Your task to perform on an android device: change the clock display to digital Image 0: 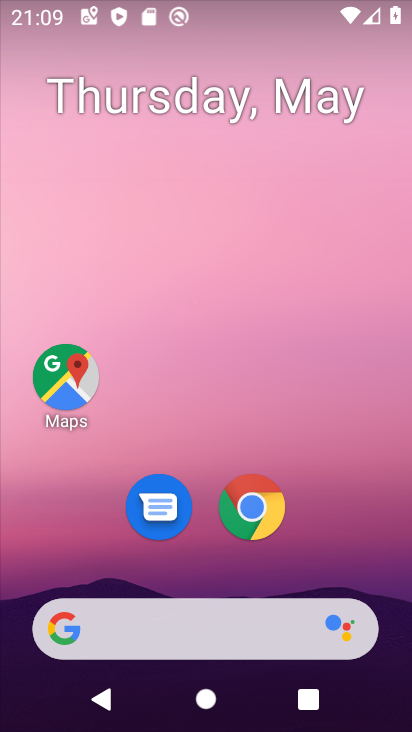
Step 0: drag from (363, 665) to (333, 287)
Your task to perform on an android device: change the clock display to digital Image 1: 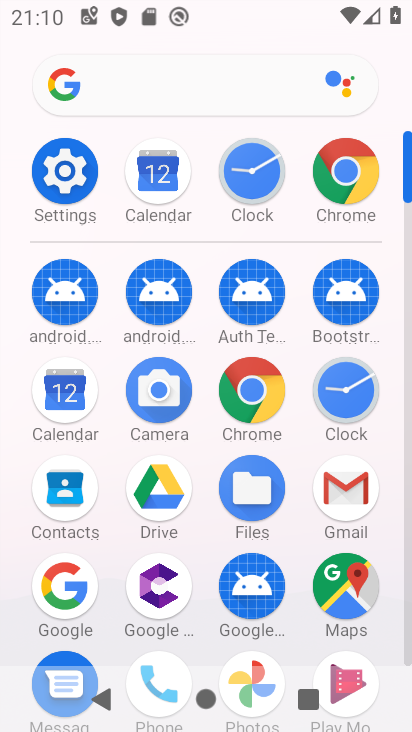
Step 1: click (345, 381)
Your task to perform on an android device: change the clock display to digital Image 2: 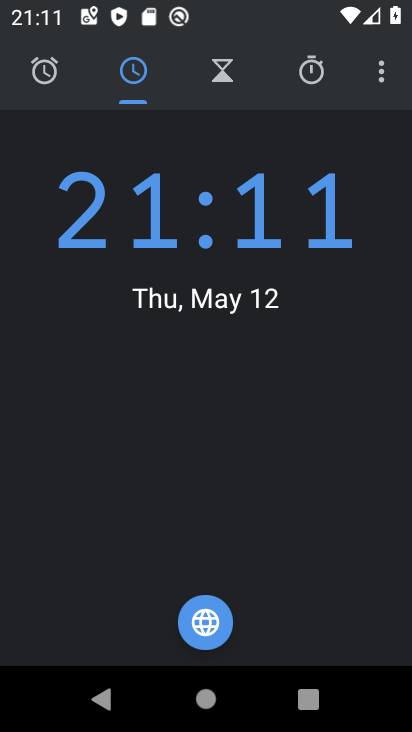
Step 2: click (365, 89)
Your task to perform on an android device: change the clock display to digital Image 3: 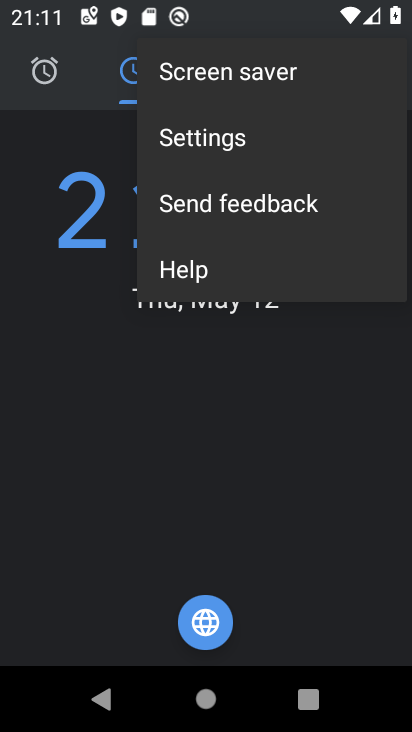
Step 3: click (283, 141)
Your task to perform on an android device: change the clock display to digital Image 4: 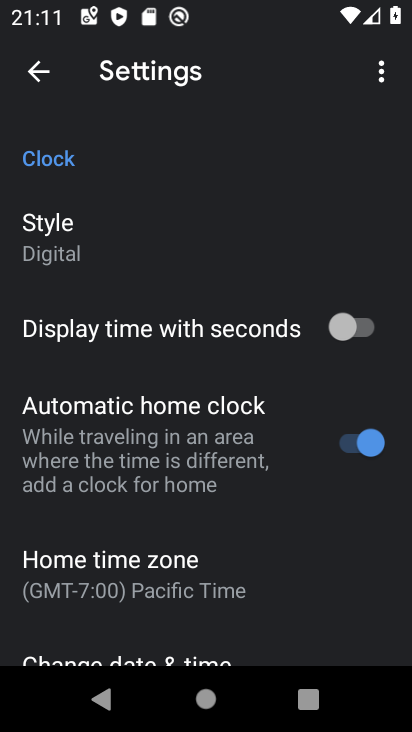
Step 4: click (102, 271)
Your task to perform on an android device: change the clock display to digital Image 5: 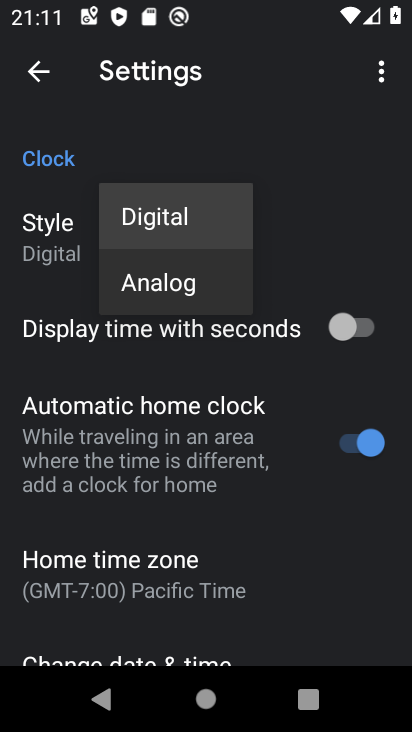
Step 5: click (179, 229)
Your task to perform on an android device: change the clock display to digital Image 6: 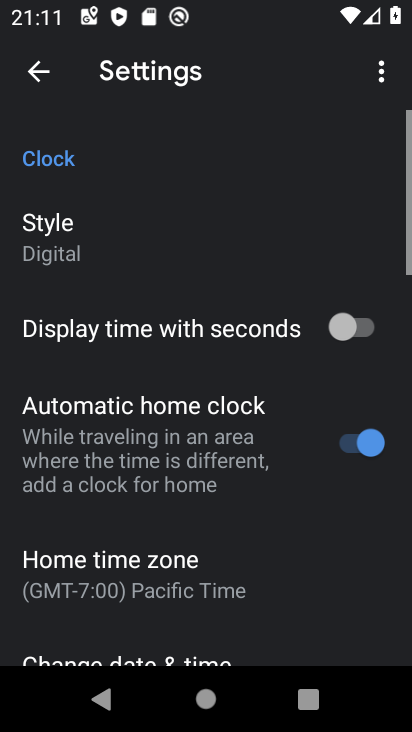
Step 6: task complete